Your task to perform on an android device: Open calendar and show me the first week of next month Image 0: 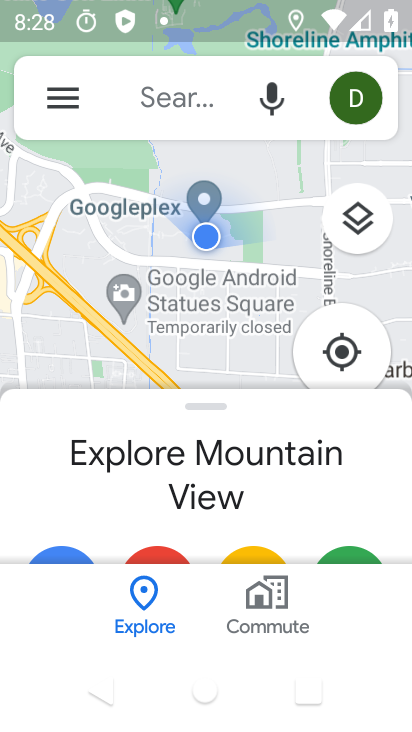
Step 0: press home button
Your task to perform on an android device: Open calendar and show me the first week of next month Image 1: 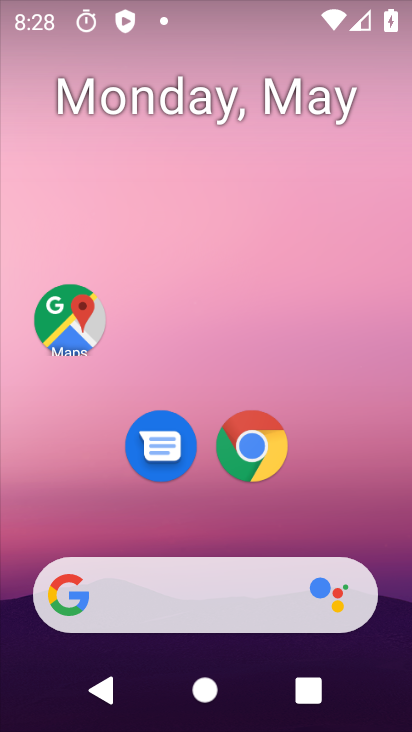
Step 1: drag from (340, 513) to (296, 1)
Your task to perform on an android device: Open calendar and show me the first week of next month Image 2: 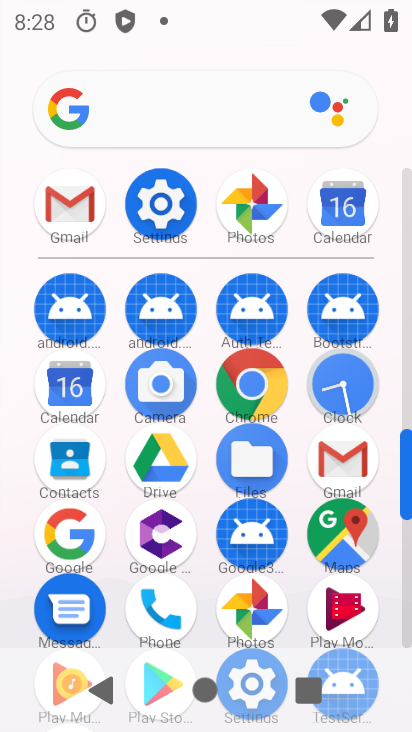
Step 2: click (347, 210)
Your task to perform on an android device: Open calendar and show me the first week of next month Image 3: 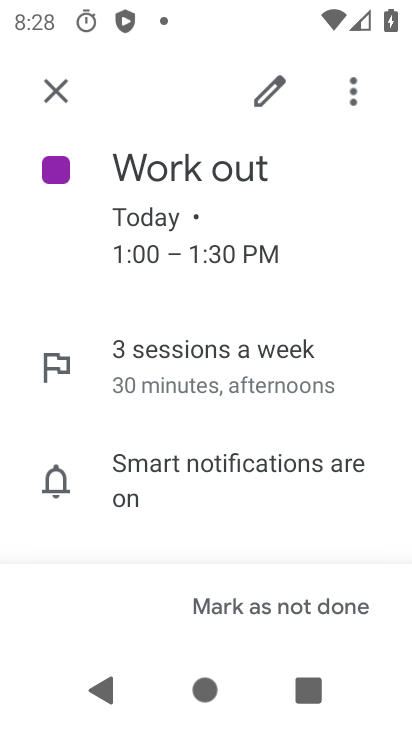
Step 3: click (45, 92)
Your task to perform on an android device: Open calendar and show me the first week of next month Image 4: 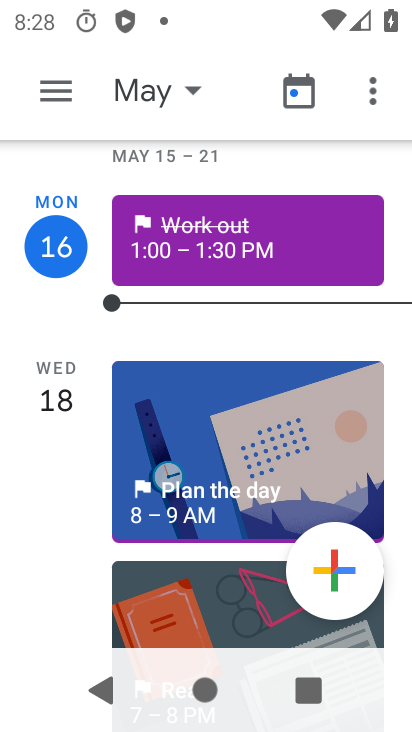
Step 4: click (192, 97)
Your task to perform on an android device: Open calendar and show me the first week of next month Image 5: 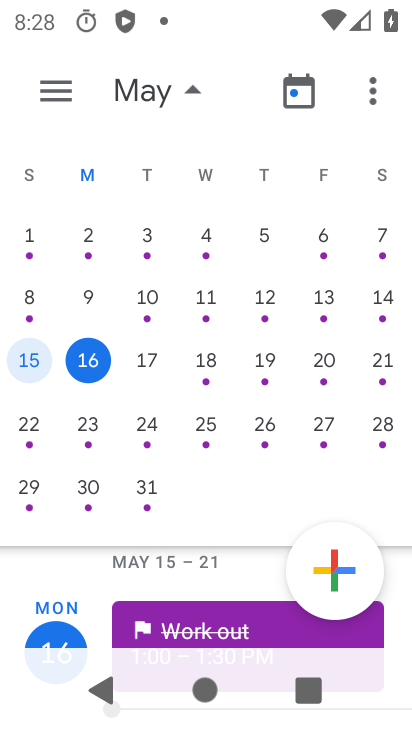
Step 5: drag from (291, 304) to (24, 352)
Your task to perform on an android device: Open calendar and show me the first week of next month Image 6: 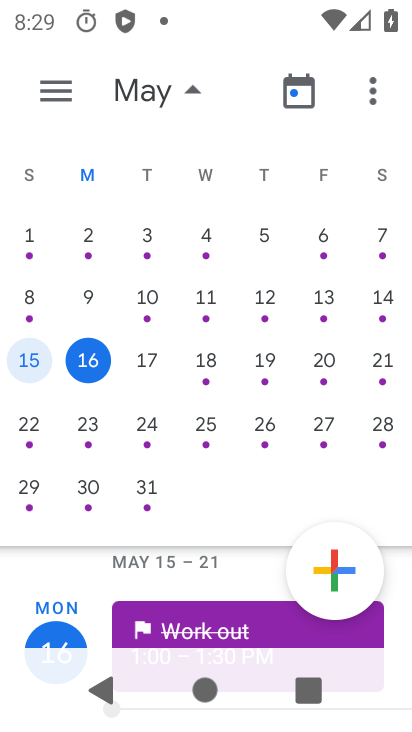
Step 6: drag from (289, 368) to (12, 432)
Your task to perform on an android device: Open calendar and show me the first week of next month Image 7: 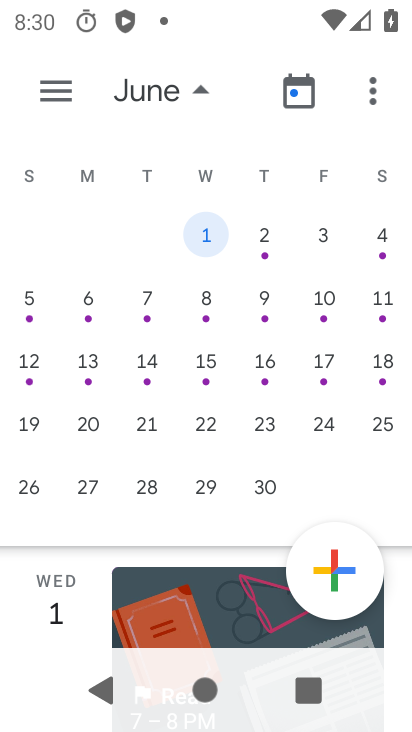
Step 7: click (46, 92)
Your task to perform on an android device: Open calendar and show me the first week of next month Image 8: 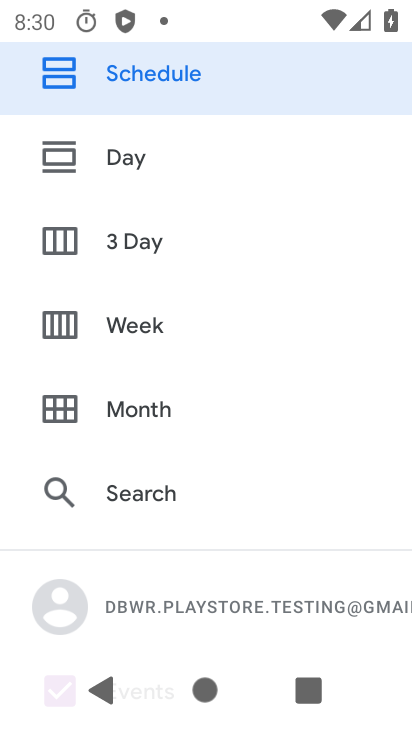
Step 8: click (128, 325)
Your task to perform on an android device: Open calendar and show me the first week of next month Image 9: 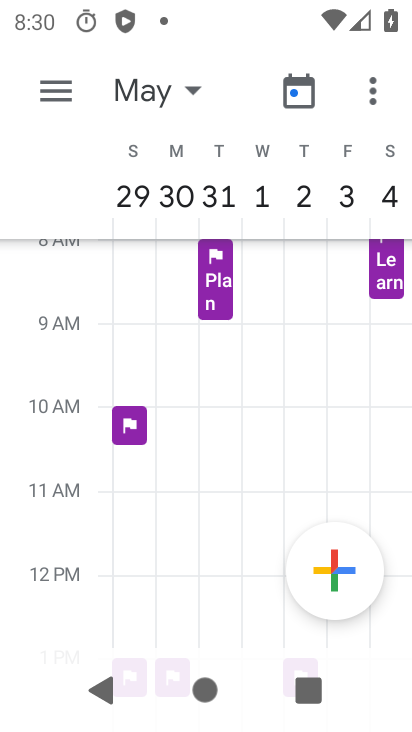
Step 9: task complete